Your task to perform on an android device: turn off improve location accuracy Image 0: 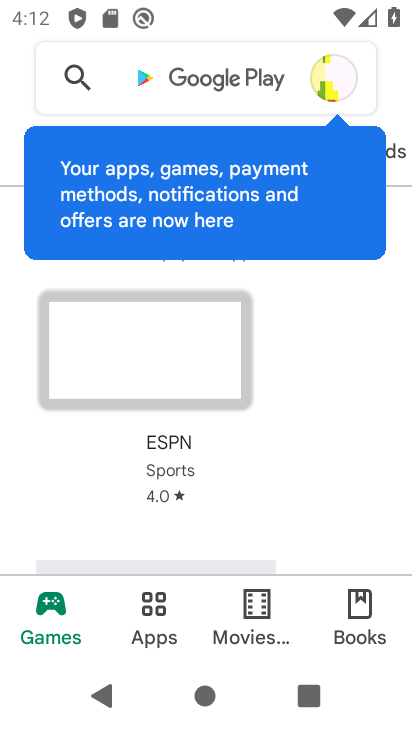
Step 0: press home button
Your task to perform on an android device: turn off improve location accuracy Image 1: 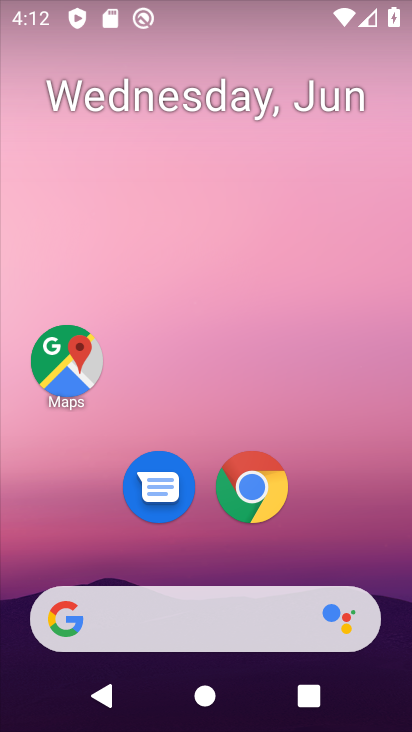
Step 1: drag from (356, 508) to (345, 148)
Your task to perform on an android device: turn off improve location accuracy Image 2: 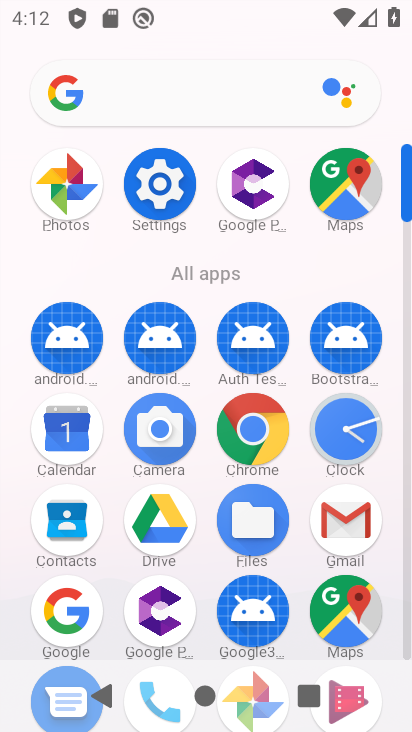
Step 2: click (155, 183)
Your task to perform on an android device: turn off improve location accuracy Image 3: 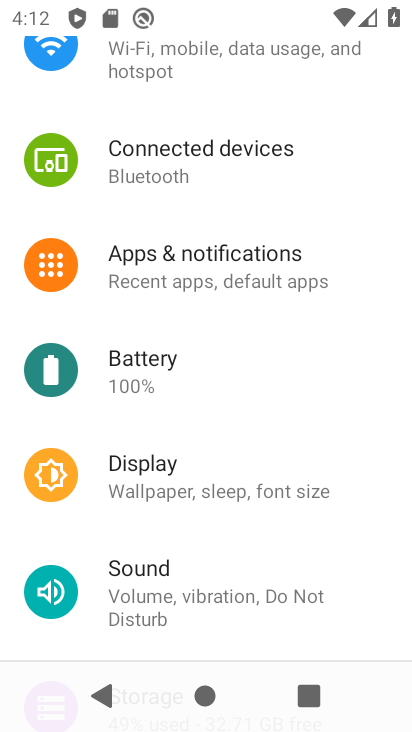
Step 3: click (273, 144)
Your task to perform on an android device: turn off improve location accuracy Image 4: 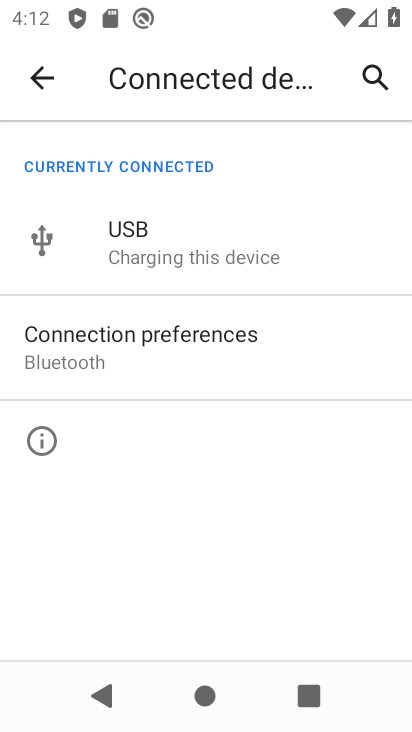
Step 4: click (48, 58)
Your task to perform on an android device: turn off improve location accuracy Image 5: 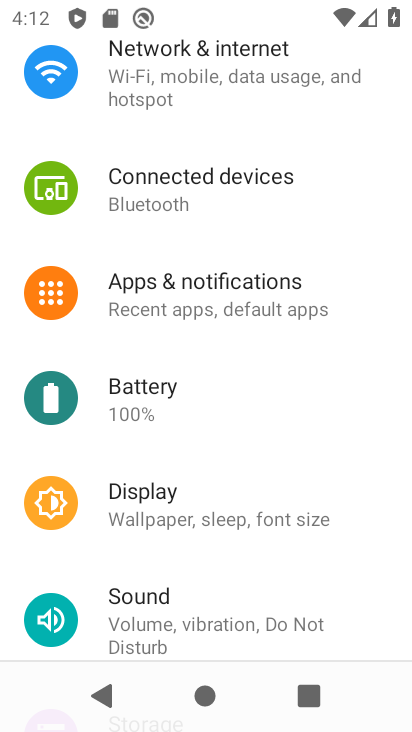
Step 5: drag from (235, 442) to (281, 59)
Your task to perform on an android device: turn off improve location accuracy Image 6: 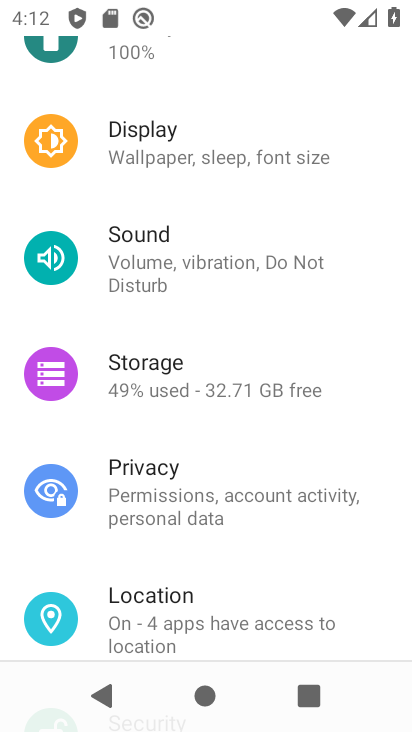
Step 6: click (165, 602)
Your task to perform on an android device: turn off improve location accuracy Image 7: 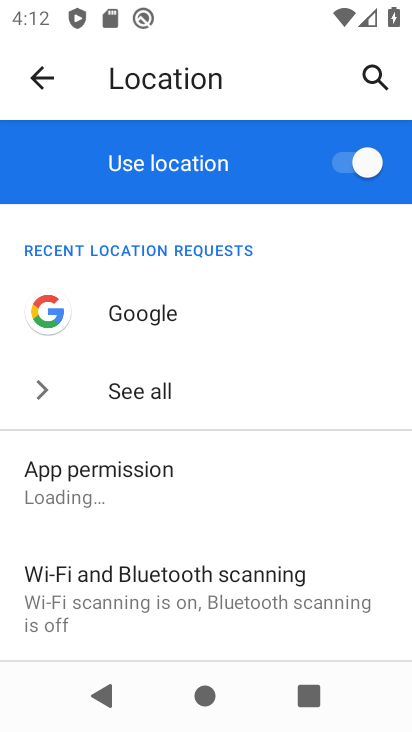
Step 7: drag from (236, 610) to (266, 244)
Your task to perform on an android device: turn off improve location accuracy Image 8: 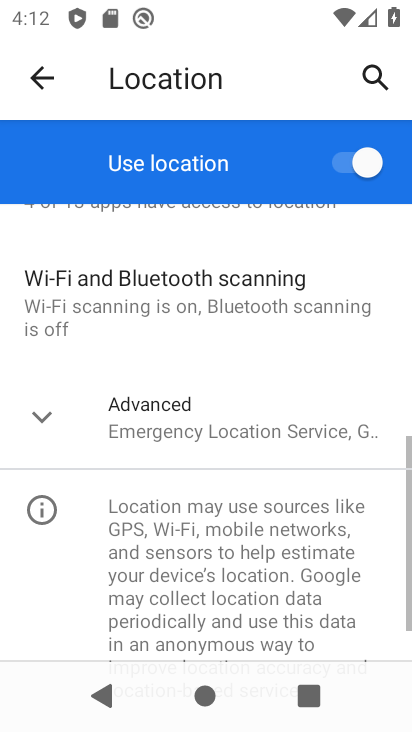
Step 8: click (207, 449)
Your task to perform on an android device: turn off improve location accuracy Image 9: 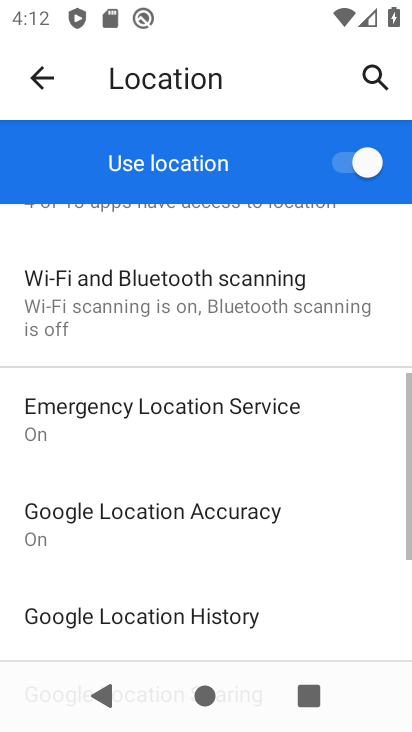
Step 9: drag from (271, 582) to (295, 313)
Your task to perform on an android device: turn off improve location accuracy Image 10: 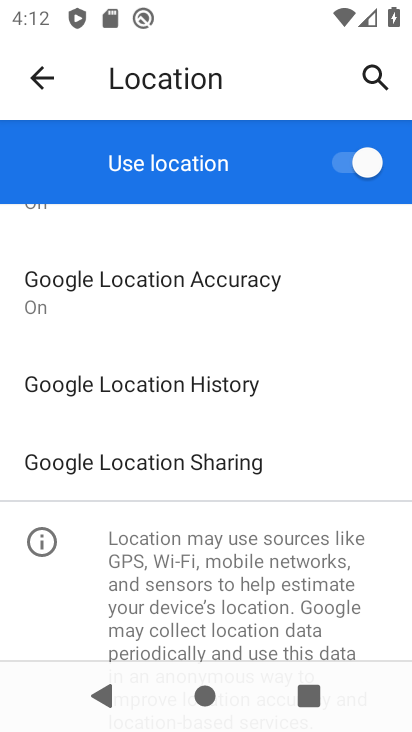
Step 10: click (212, 280)
Your task to perform on an android device: turn off improve location accuracy Image 11: 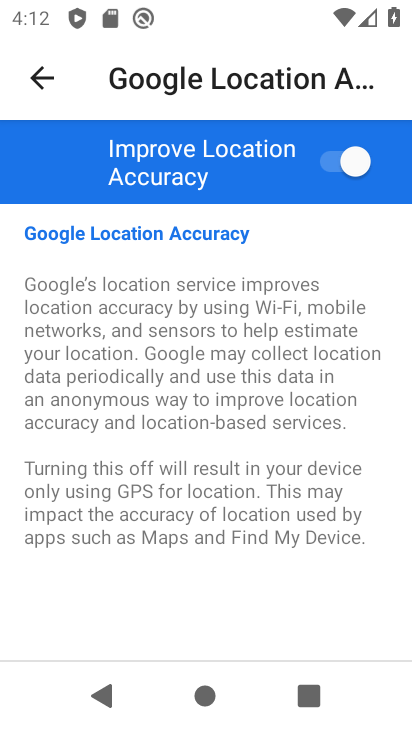
Step 11: click (324, 164)
Your task to perform on an android device: turn off improve location accuracy Image 12: 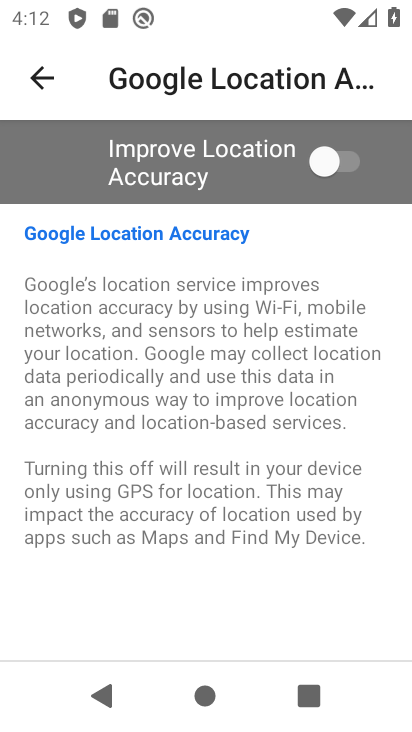
Step 12: task complete